Your task to perform on an android device: open chrome privacy settings Image 0: 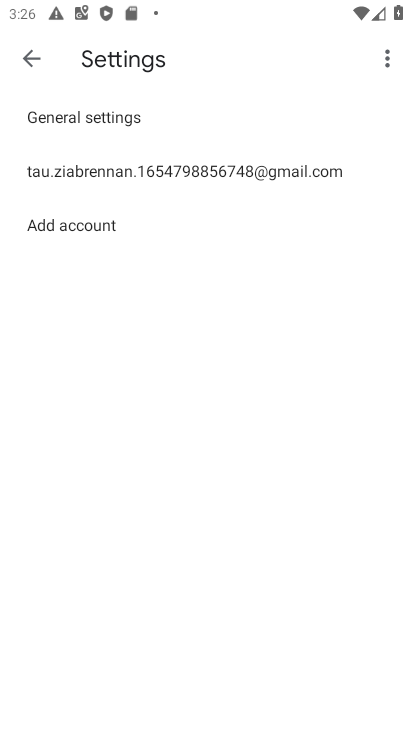
Step 0: press home button
Your task to perform on an android device: open chrome privacy settings Image 1: 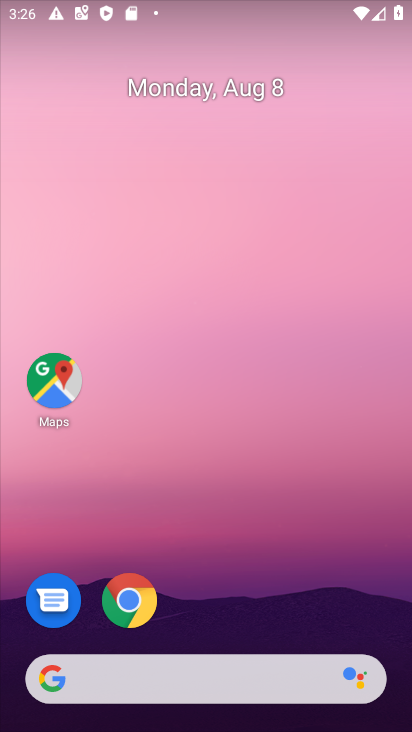
Step 1: click (142, 601)
Your task to perform on an android device: open chrome privacy settings Image 2: 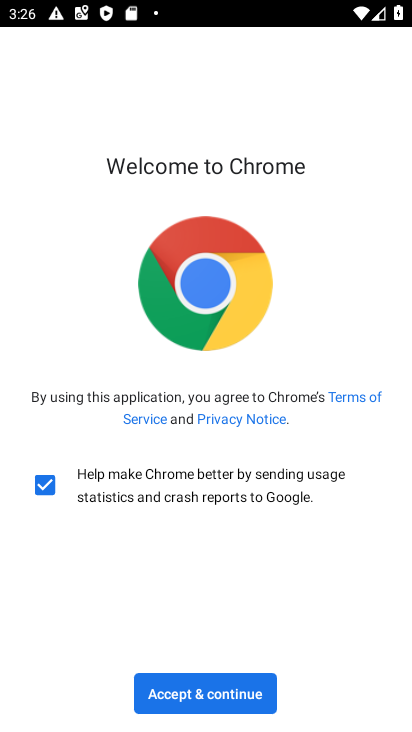
Step 2: click (206, 693)
Your task to perform on an android device: open chrome privacy settings Image 3: 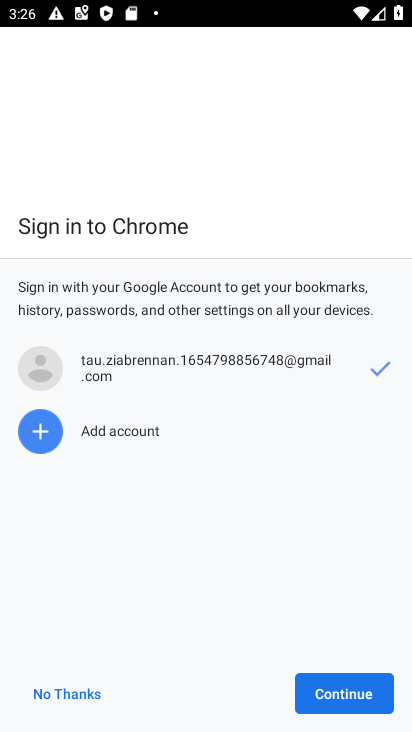
Step 3: click (348, 695)
Your task to perform on an android device: open chrome privacy settings Image 4: 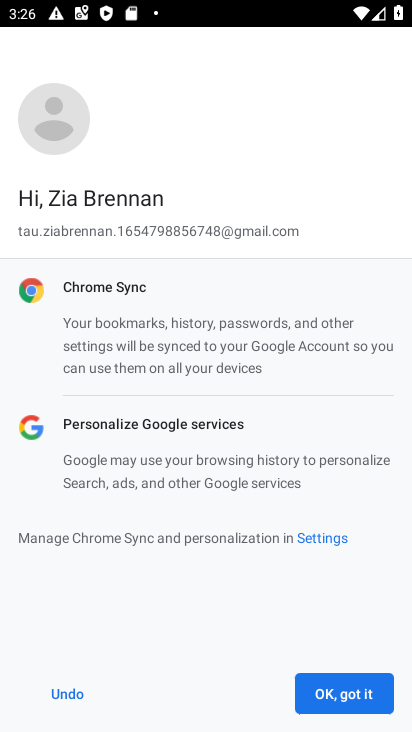
Step 4: click (348, 695)
Your task to perform on an android device: open chrome privacy settings Image 5: 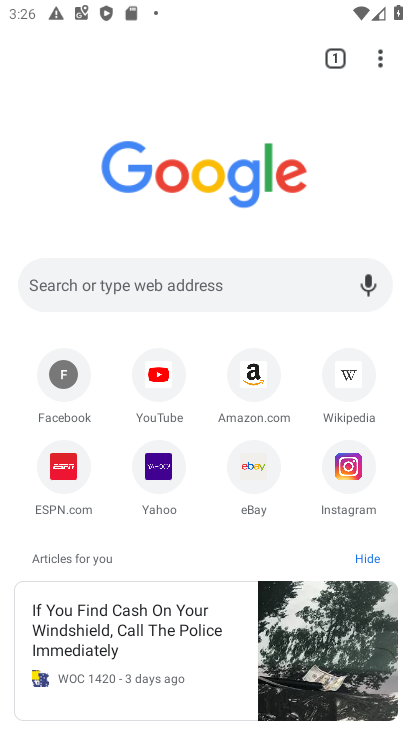
Step 5: click (376, 57)
Your task to perform on an android device: open chrome privacy settings Image 6: 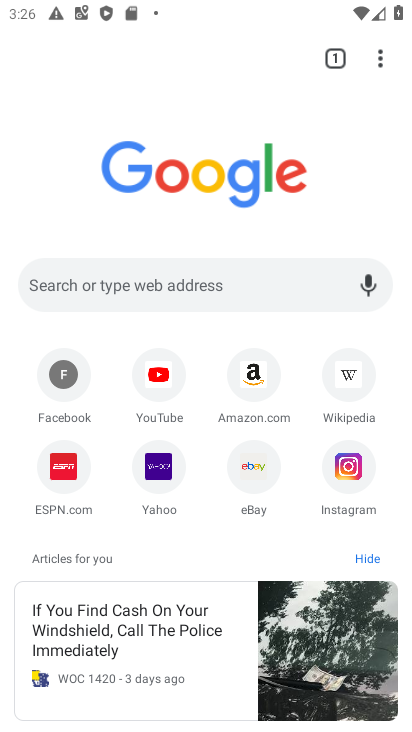
Step 6: click (376, 58)
Your task to perform on an android device: open chrome privacy settings Image 7: 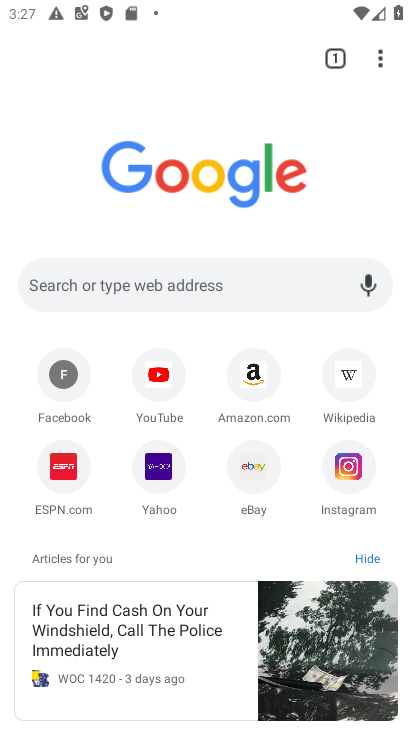
Step 7: drag from (36, 626) to (101, 636)
Your task to perform on an android device: open chrome privacy settings Image 8: 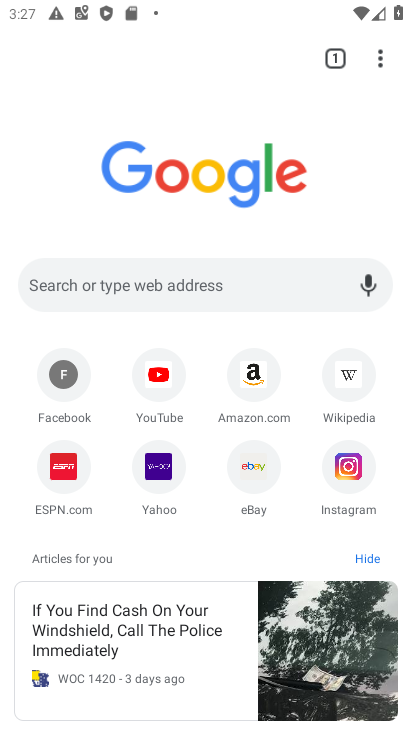
Step 8: click (380, 57)
Your task to perform on an android device: open chrome privacy settings Image 9: 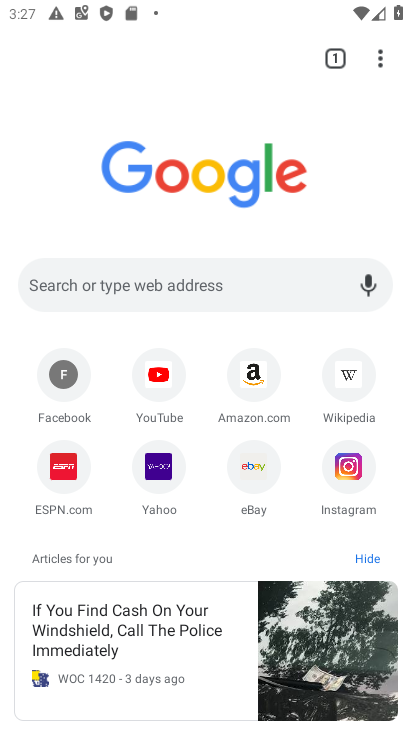
Step 9: click (380, 57)
Your task to perform on an android device: open chrome privacy settings Image 10: 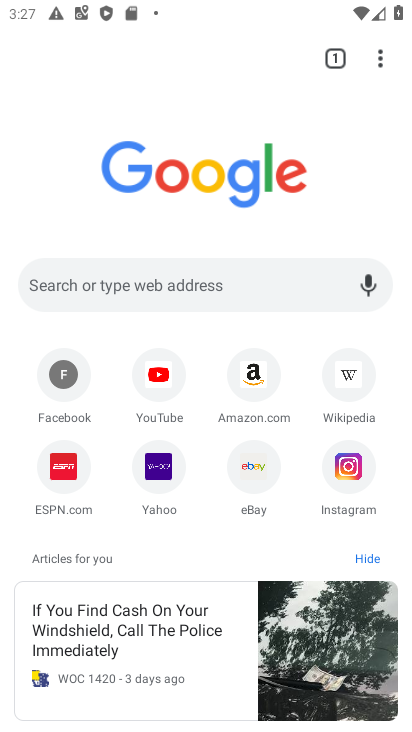
Step 10: click (380, 57)
Your task to perform on an android device: open chrome privacy settings Image 11: 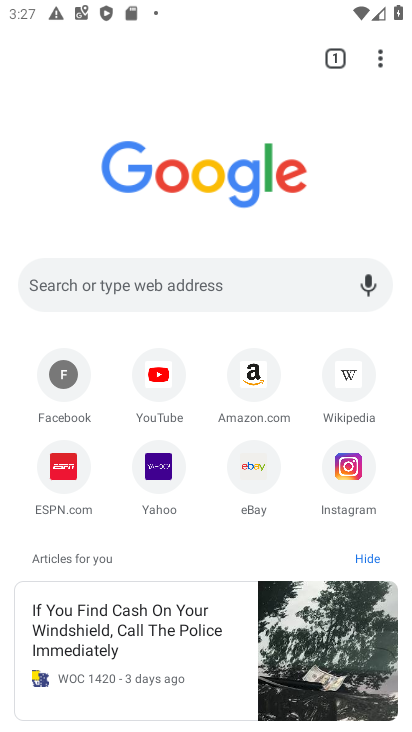
Step 11: click (380, 57)
Your task to perform on an android device: open chrome privacy settings Image 12: 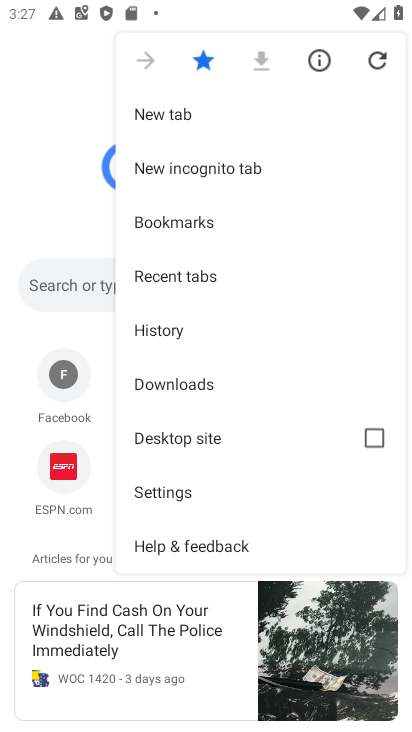
Step 12: click (178, 492)
Your task to perform on an android device: open chrome privacy settings Image 13: 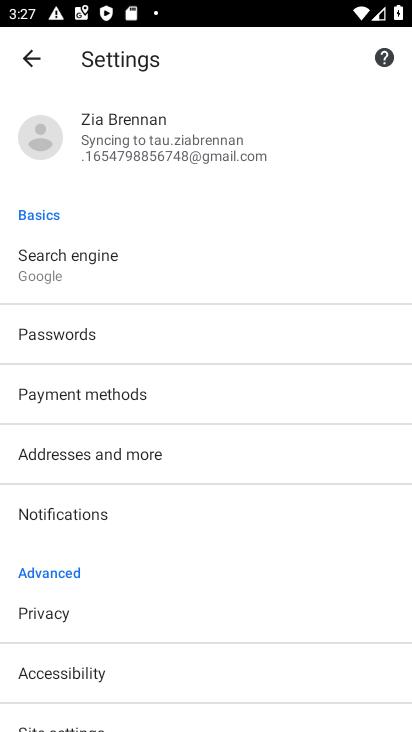
Step 13: click (46, 602)
Your task to perform on an android device: open chrome privacy settings Image 14: 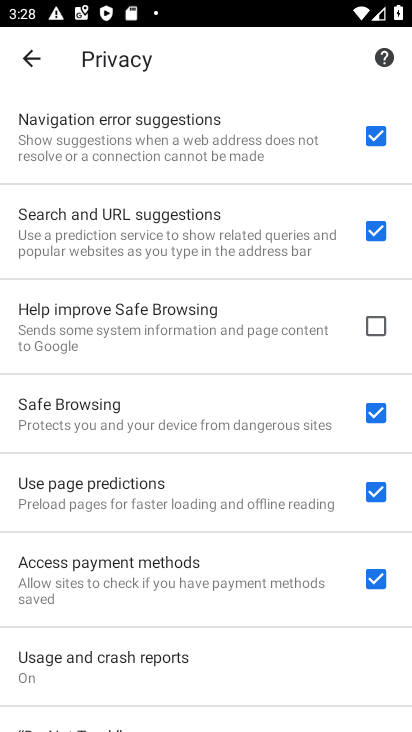
Step 14: task complete